Your task to perform on an android device: Go to Yahoo.com Image 0: 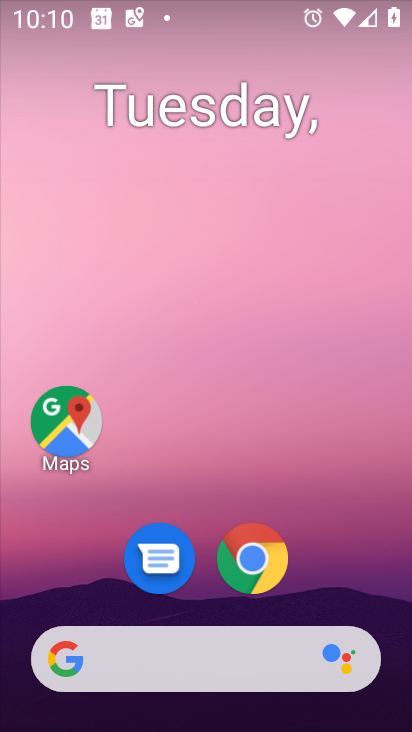
Step 0: drag from (238, 407) to (170, 247)
Your task to perform on an android device: Go to Yahoo.com Image 1: 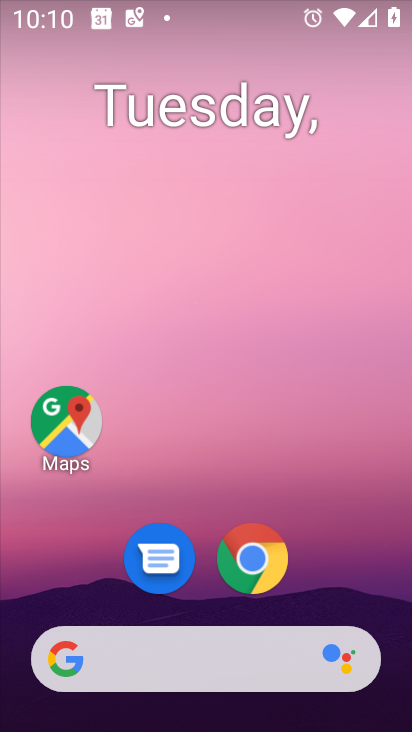
Step 1: drag from (248, 554) to (173, 12)
Your task to perform on an android device: Go to Yahoo.com Image 2: 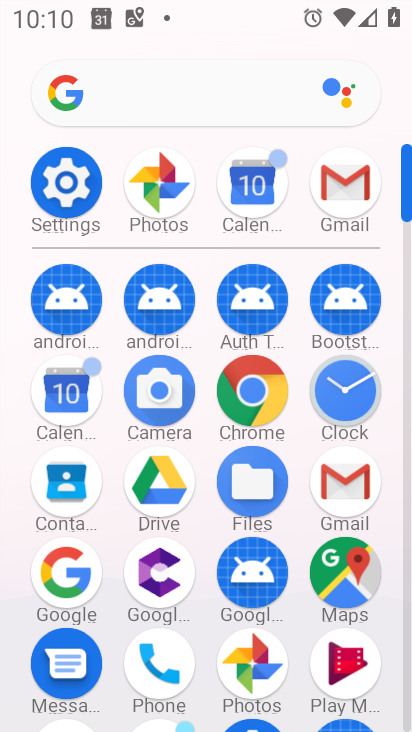
Step 2: drag from (259, 535) to (87, 131)
Your task to perform on an android device: Go to Yahoo.com Image 3: 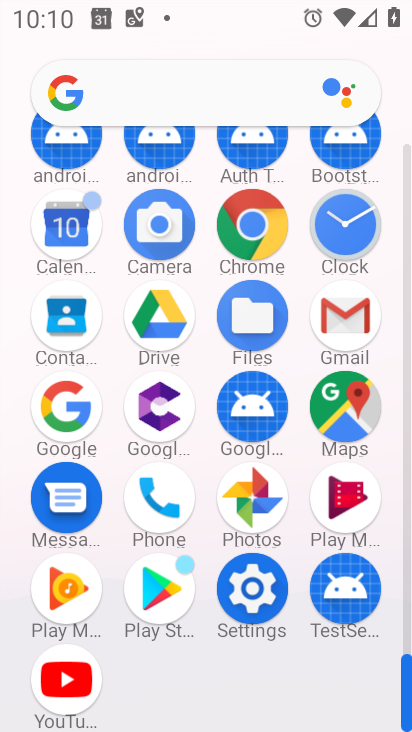
Step 3: click (259, 394)
Your task to perform on an android device: Go to Yahoo.com Image 4: 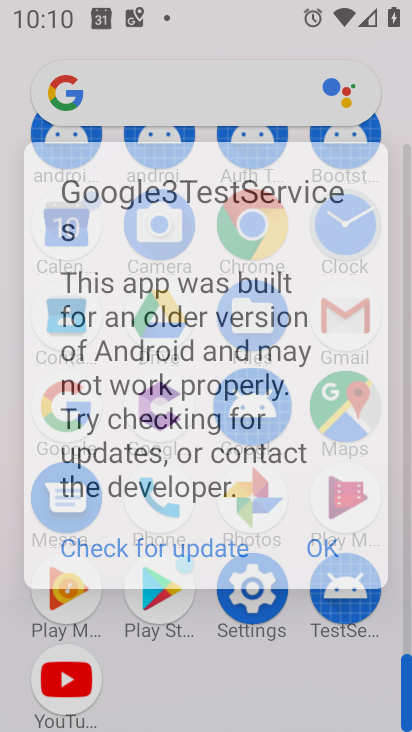
Step 4: click (264, 222)
Your task to perform on an android device: Go to Yahoo.com Image 5: 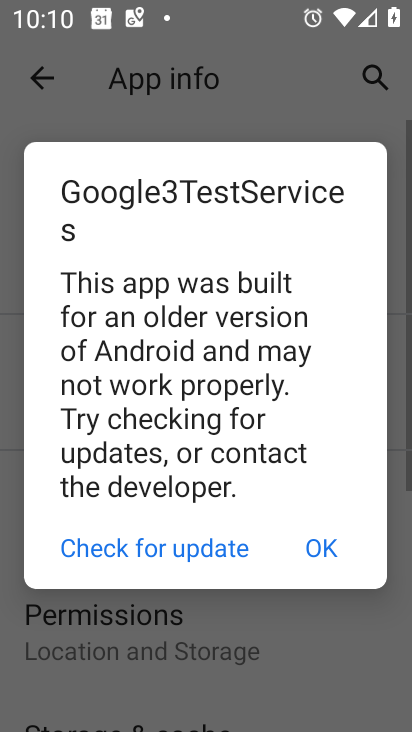
Step 5: click (334, 550)
Your task to perform on an android device: Go to Yahoo.com Image 6: 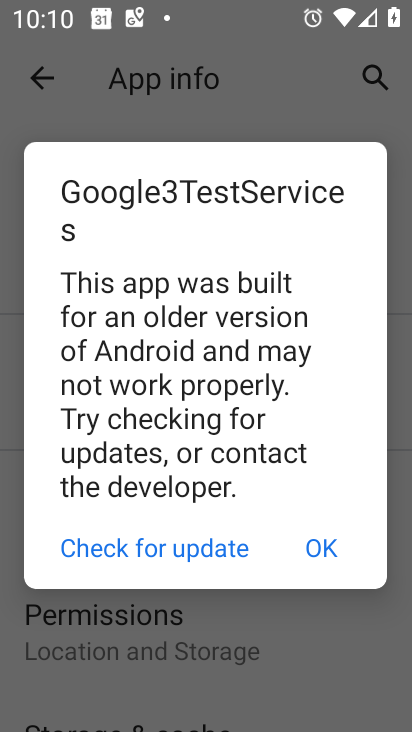
Step 6: click (319, 512)
Your task to perform on an android device: Go to Yahoo.com Image 7: 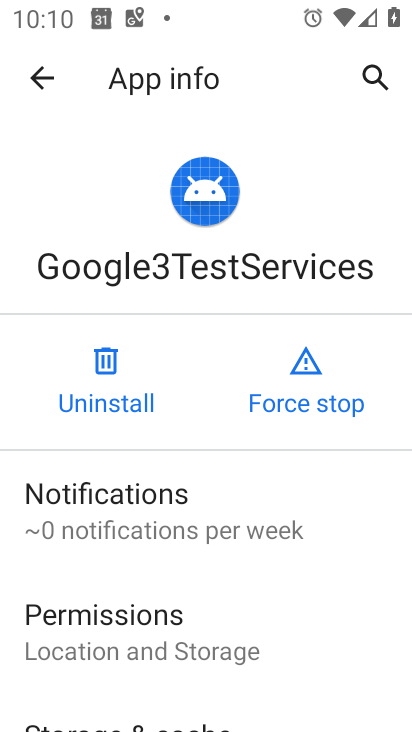
Step 7: click (330, 549)
Your task to perform on an android device: Go to Yahoo.com Image 8: 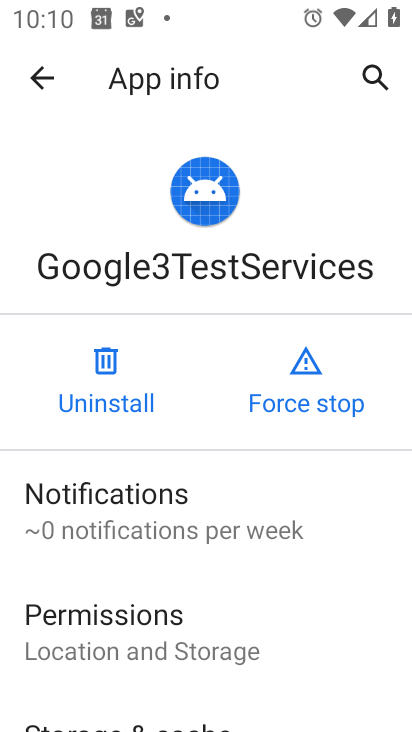
Step 8: click (331, 548)
Your task to perform on an android device: Go to Yahoo.com Image 9: 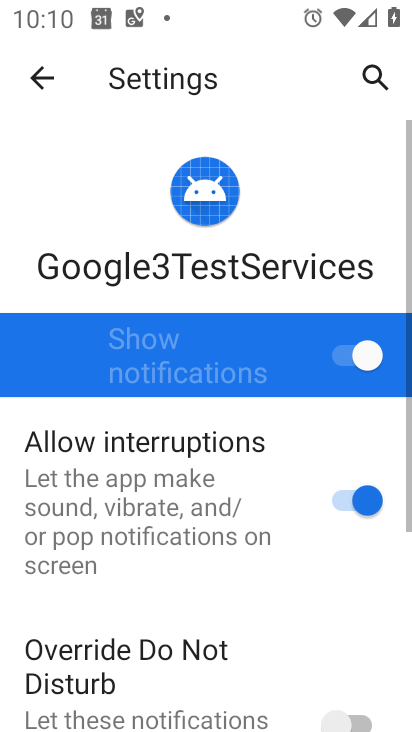
Step 9: click (45, 74)
Your task to perform on an android device: Go to Yahoo.com Image 10: 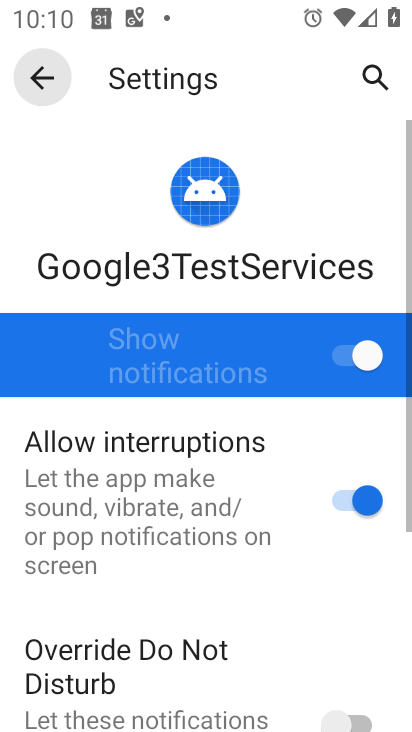
Step 10: click (40, 77)
Your task to perform on an android device: Go to Yahoo.com Image 11: 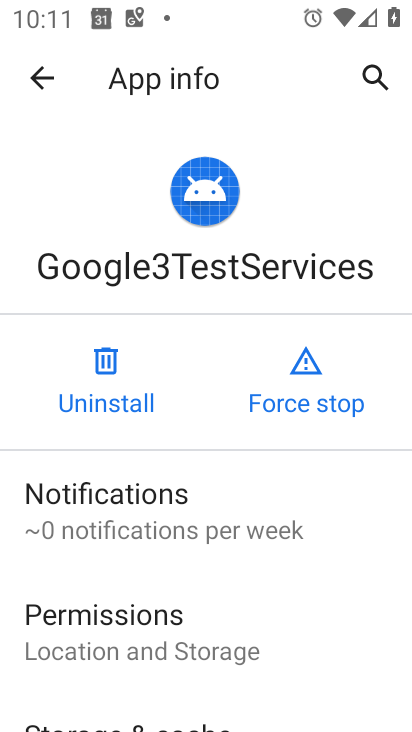
Step 11: click (43, 92)
Your task to perform on an android device: Go to Yahoo.com Image 12: 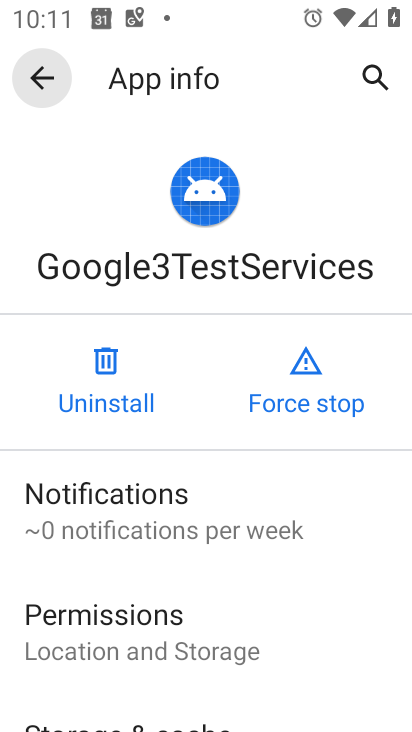
Step 12: click (39, 71)
Your task to perform on an android device: Go to Yahoo.com Image 13: 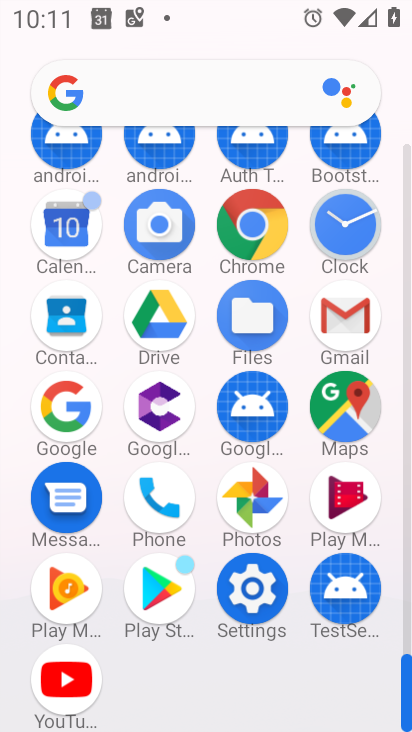
Step 13: click (258, 237)
Your task to perform on an android device: Go to Yahoo.com Image 14: 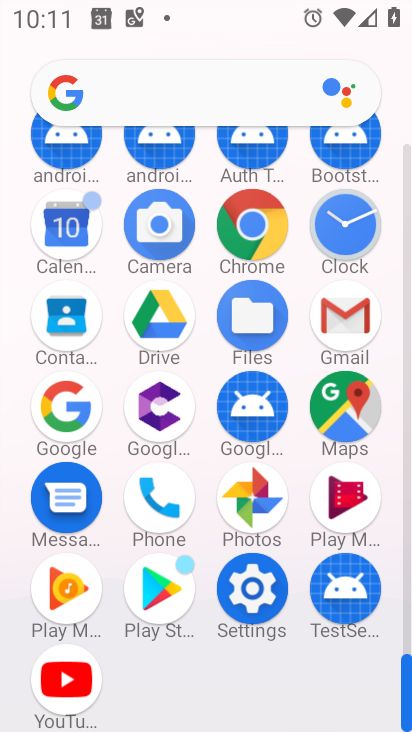
Step 14: click (246, 221)
Your task to perform on an android device: Go to Yahoo.com Image 15: 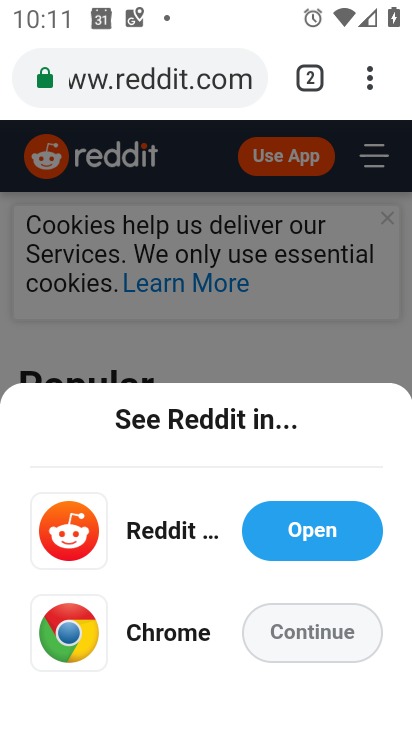
Step 15: drag from (362, 80) to (82, 147)
Your task to perform on an android device: Go to Yahoo.com Image 16: 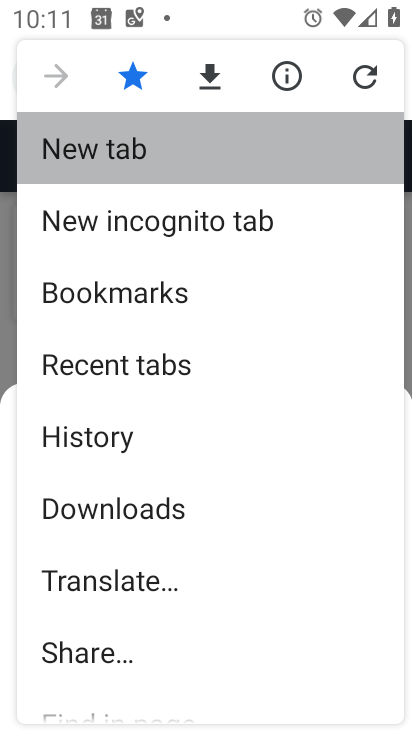
Step 16: click (82, 147)
Your task to perform on an android device: Go to Yahoo.com Image 17: 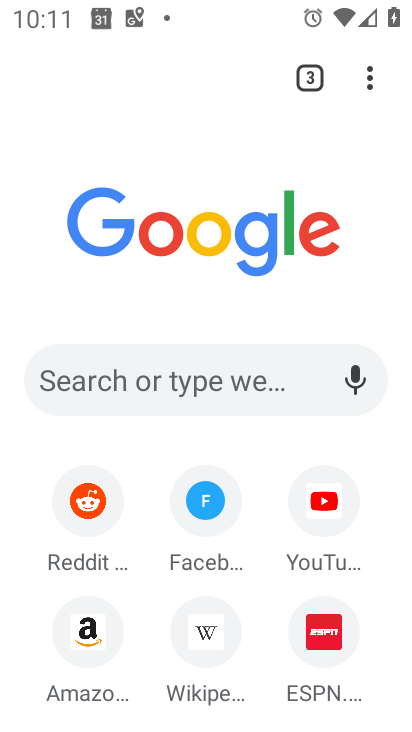
Step 17: drag from (259, 595) to (222, 177)
Your task to perform on an android device: Go to Yahoo.com Image 18: 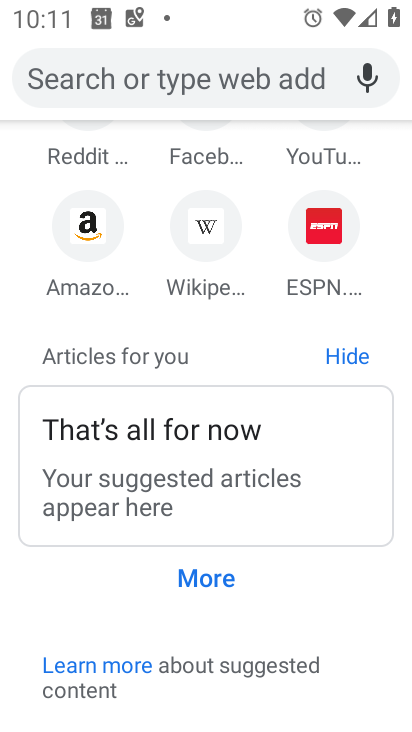
Step 18: click (92, 382)
Your task to perform on an android device: Go to Yahoo.com Image 19: 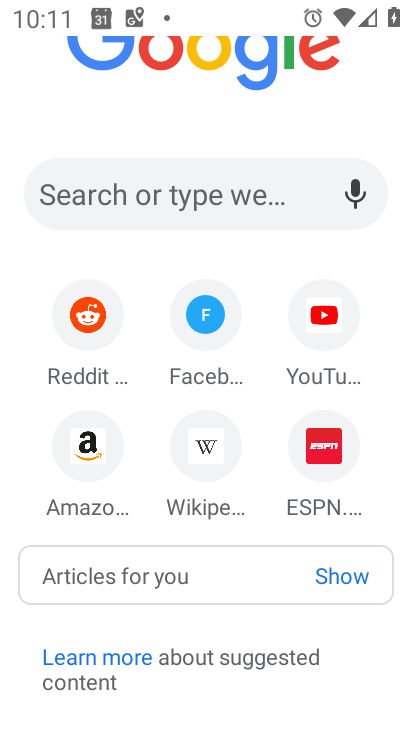
Step 19: drag from (164, 205) to (135, 515)
Your task to perform on an android device: Go to Yahoo.com Image 20: 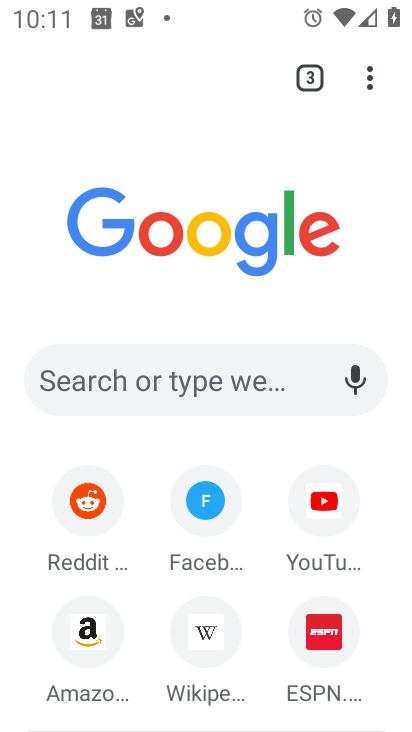
Step 20: click (91, 193)
Your task to perform on an android device: Go to Yahoo.com Image 21: 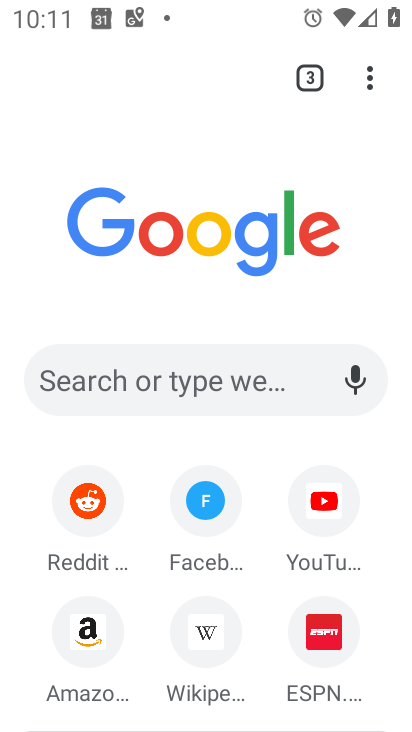
Step 21: click (81, 367)
Your task to perform on an android device: Go to Yahoo.com Image 22: 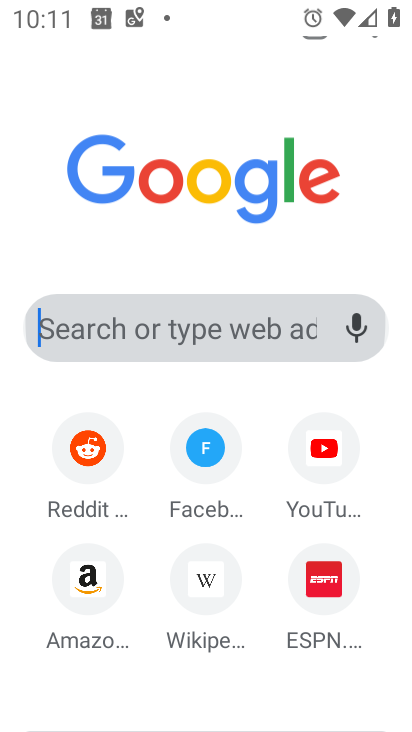
Step 22: click (81, 367)
Your task to perform on an android device: Go to Yahoo.com Image 23: 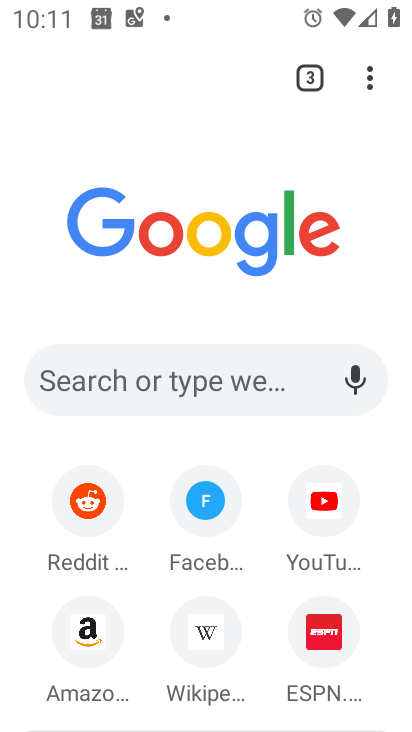
Step 23: type "yahoo.com"
Your task to perform on an android device: Go to Yahoo.com Image 24: 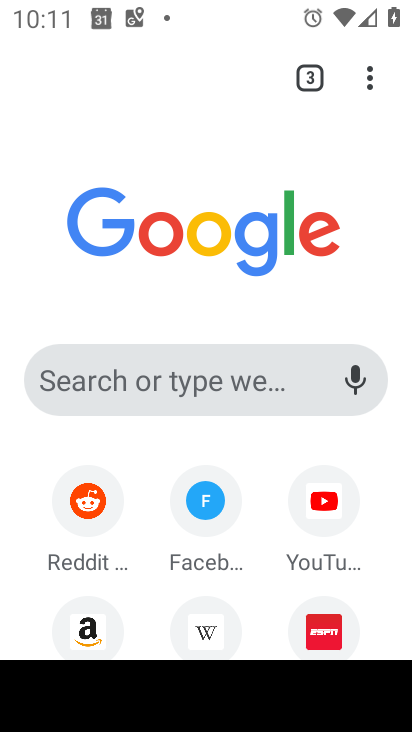
Step 24: click (89, 374)
Your task to perform on an android device: Go to Yahoo.com Image 25: 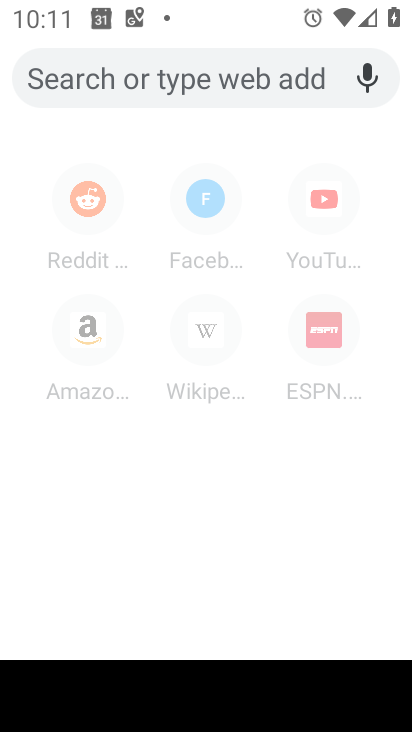
Step 25: type "yahoo.com"
Your task to perform on an android device: Go to Yahoo.com Image 26: 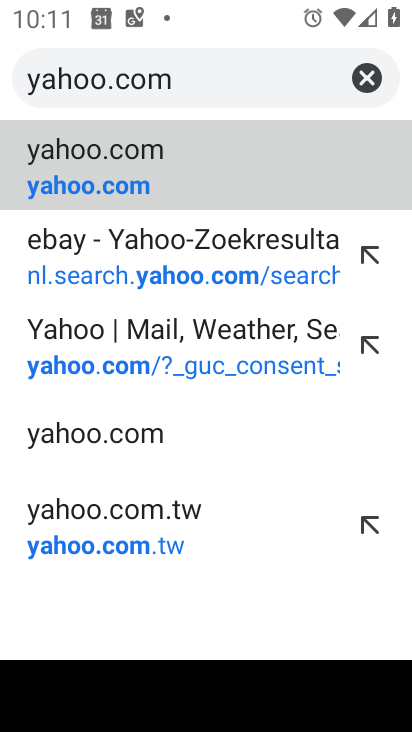
Step 26: click (62, 182)
Your task to perform on an android device: Go to Yahoo.com Image 27: 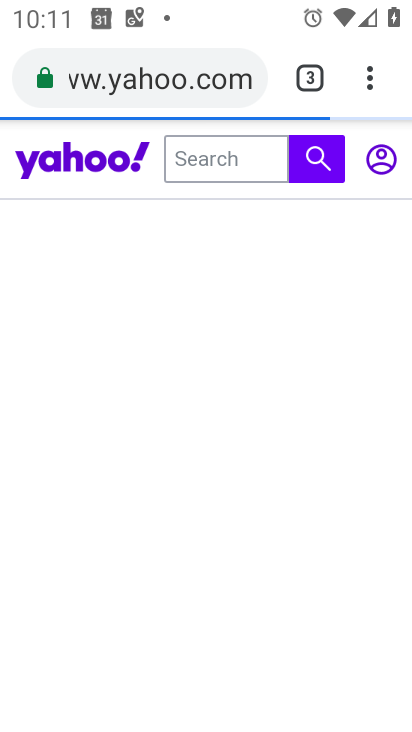
Step 27: task complete